Your task to perform on an android device: Go to location settings Image 0: 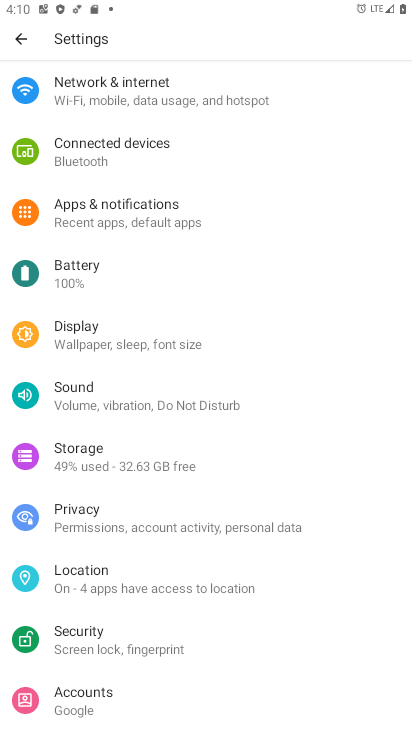
Step 0: click (253, 580)
Your task to perform on an android device: Go to location settings Image 1: 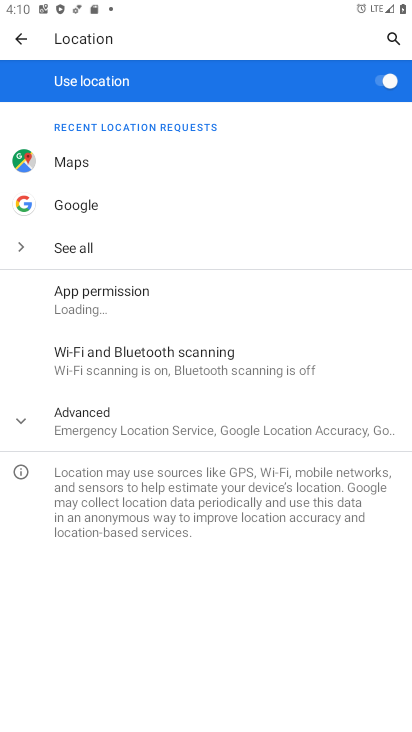
Step 1: task complete